Your task to perform on an android device: What is the news today? Image 0: 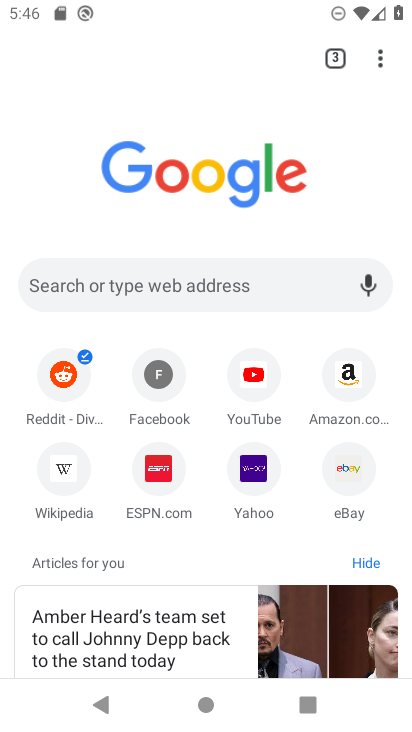
Step 0: press home button
Your task to perform on an android device: What is the news today? Image 1: 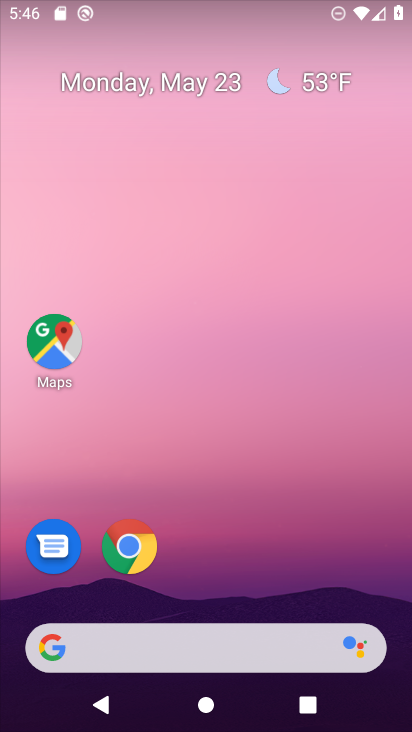
Step 1: click (135, 635)
Your task to perform on an android device: What is the news today? Image 2: 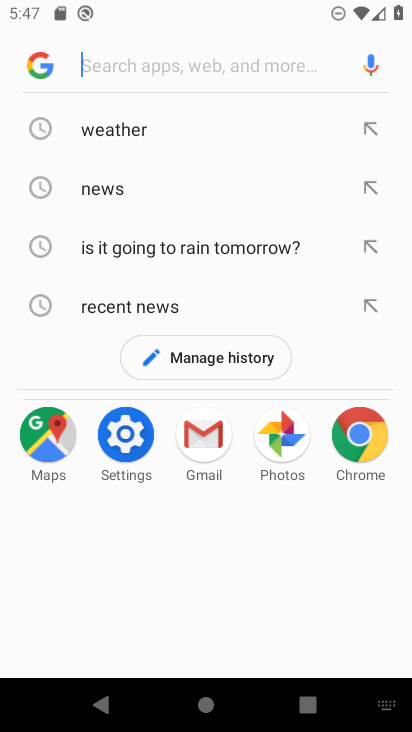
Step 2: type "news today?"
Your task to perform on an android device: What is the news today? Image 3: 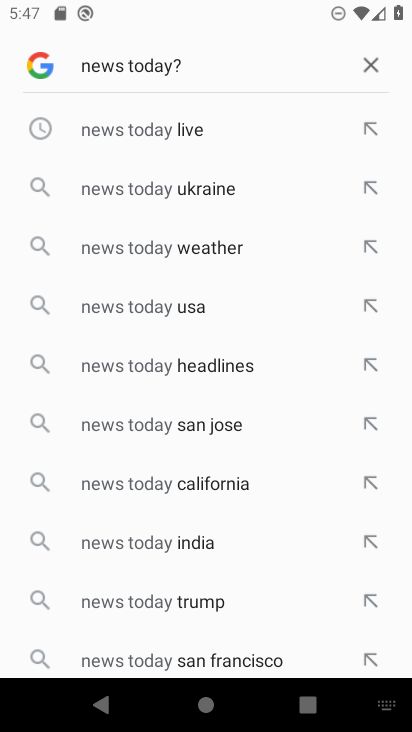
Step 3: click (170, 133)
Your task to perform on an android device: What is the news today? Image 4: 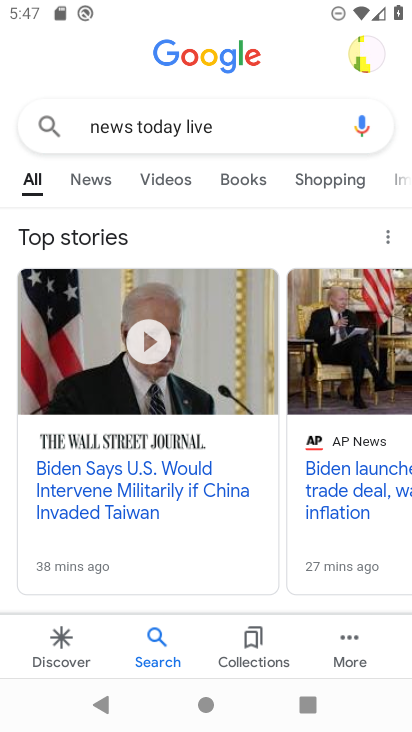
Step 4: click (98, 183)
Your task to perform on an android device: What is the news today? Image 5: 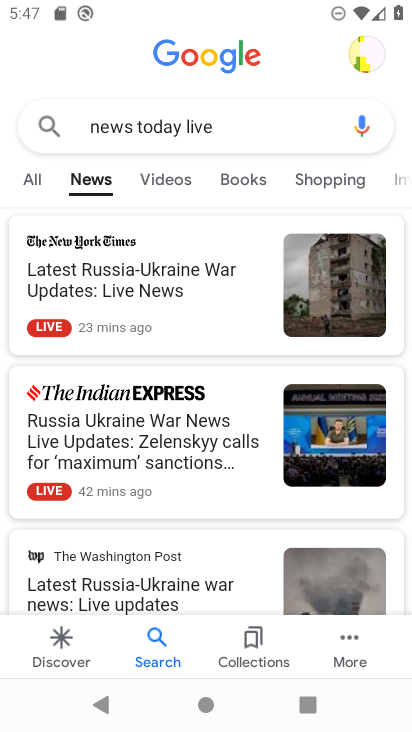
Step 5: task complete